Your task to perform on an android device: Open settings on Google Maps Image 0: 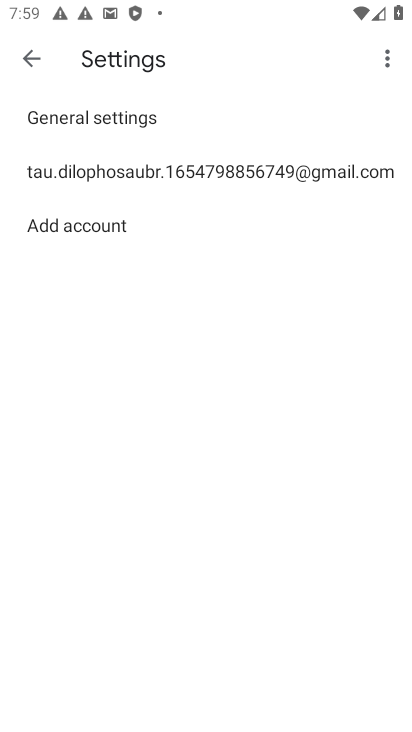
Step 0: press home button
Your task to perform on an android device: Open settings on Google Maps Image 1: 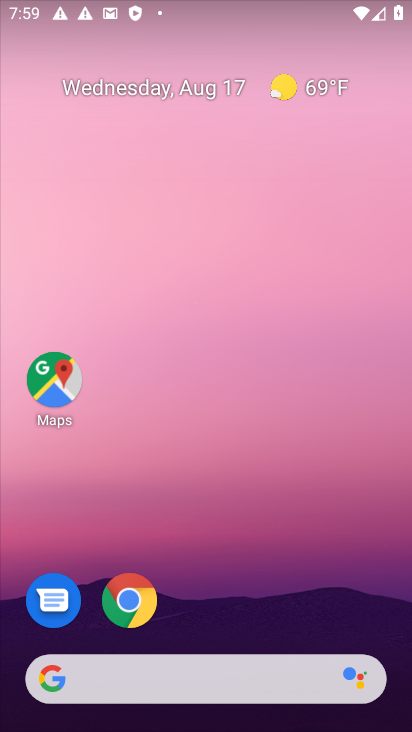
Step 1: click (68, 372)
Your task to perform on an android device: Open settings on Google Maps Image 2: 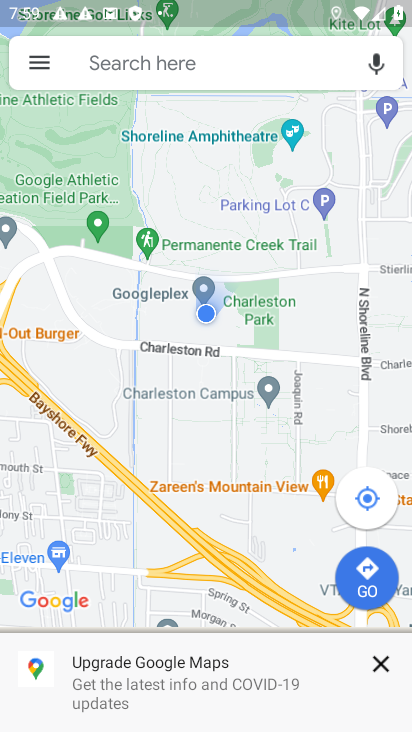
Step 2: click (42, 65)
Your task to perform on an android device: Open settings on Google Maps Image 3: 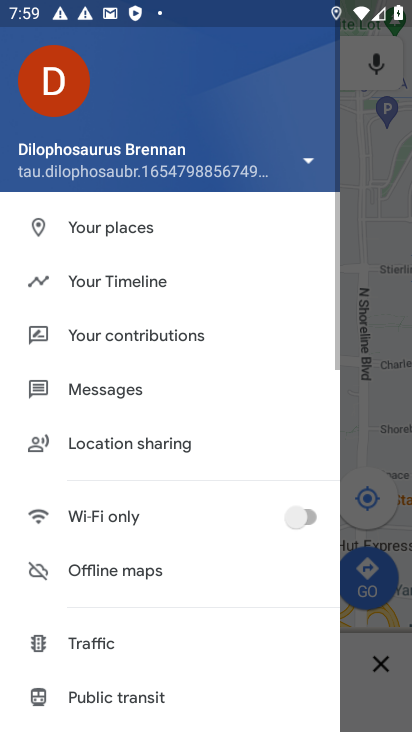
Step 3: click (180, 200)
Your task to perform on an android device: Open settings on Google Maps Image 4: 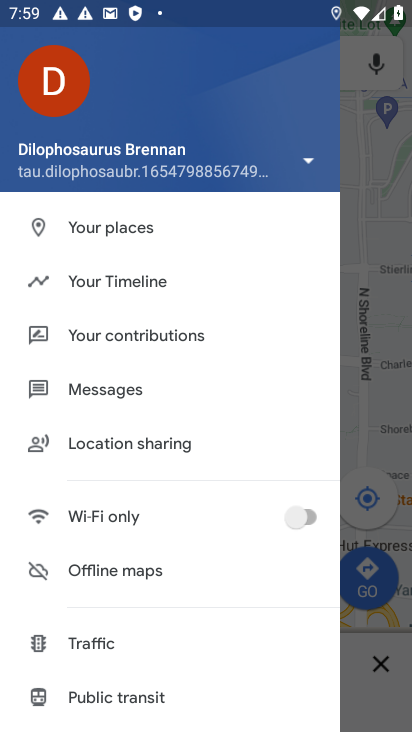
Step 4: drag from (168, 616) to (188, 163)
Your task to perform on an android device: Open settings on Google Maps Image 5: 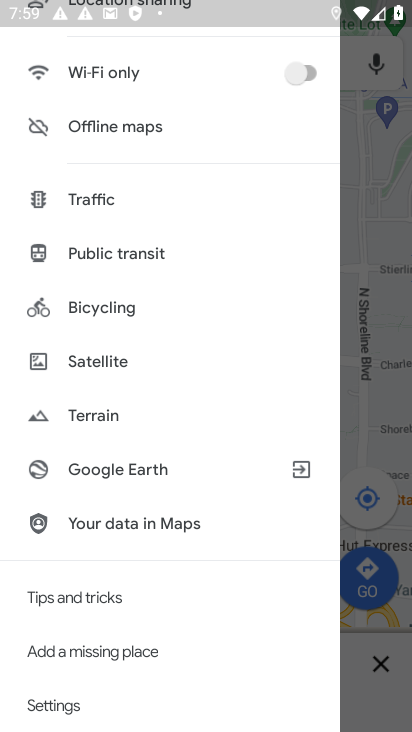
Step 5: click (65, 710)
Your task to perform on an android device: Open settings on Google Maps Image 6: 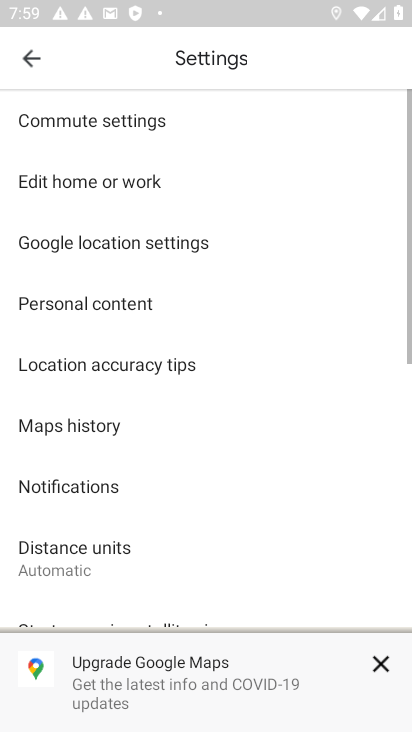
Step 6: task complete